Your task to perform on an android device: open a new tab in the chrome app Image 0: 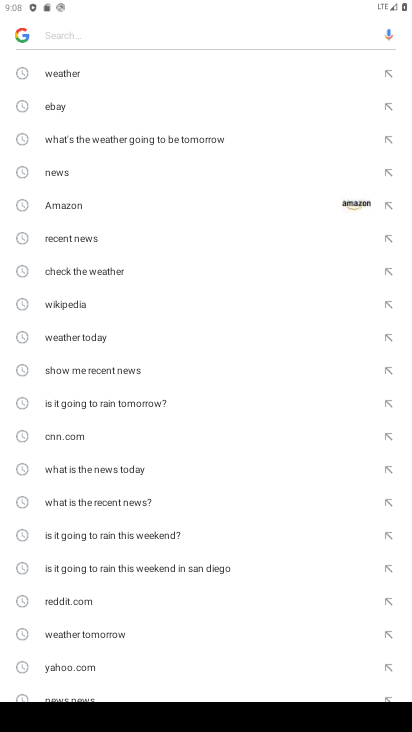
Step 0: press home button
Your task to perform on an android device: open a new tab in the chrome app Image 1: 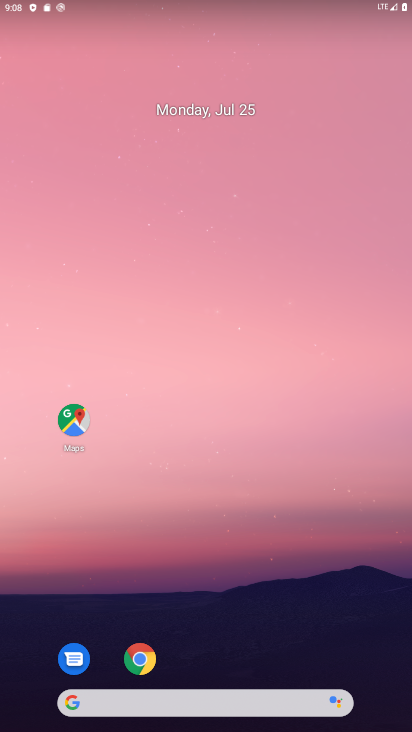
Step 1: click (146, 657)
Your task to perform on an android device: open a new tab in the chrome app Image 2: 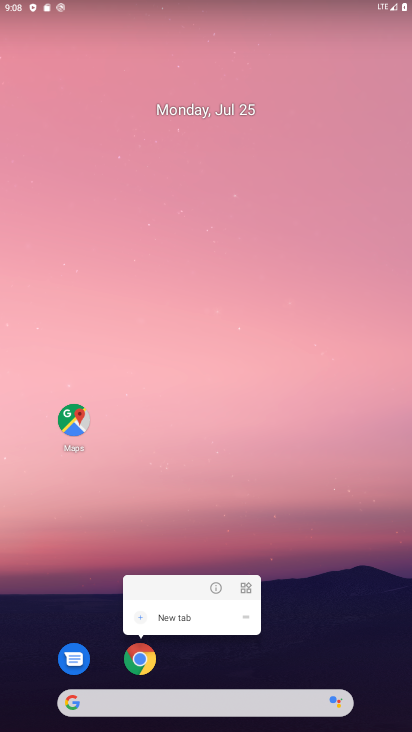
Step 2: click (141, 666)
Your task to perform on an android device: open a new tab in the chrome app Image 3: 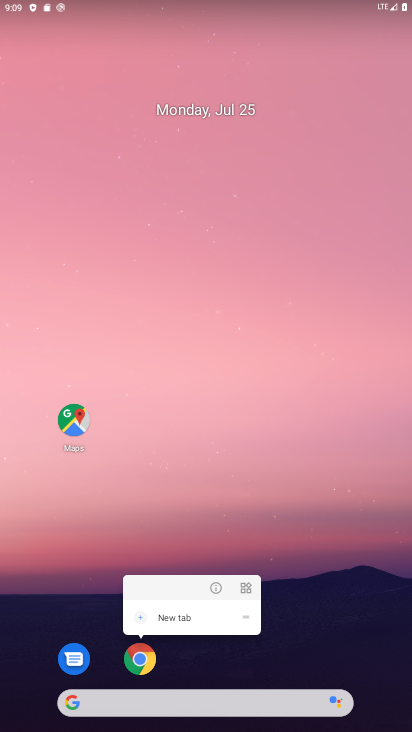
Step 3: click (145, 673)
Your task to perform on an android device: open a new tab in the chrome app Image 4: 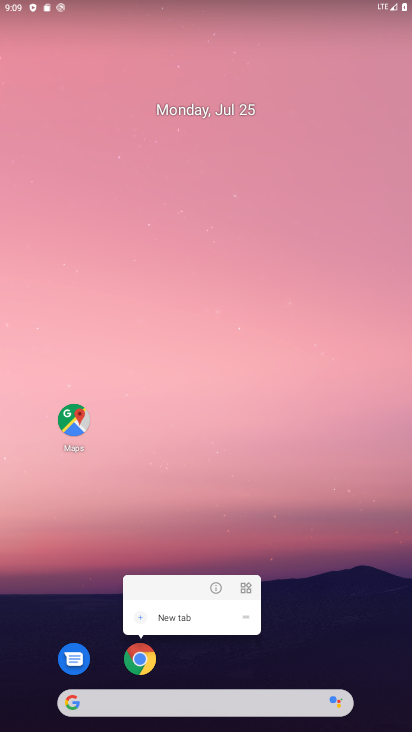
Step 4: click (141, 666)
Your task to perform on an android device: open a new tab in the chrome app Image 5: 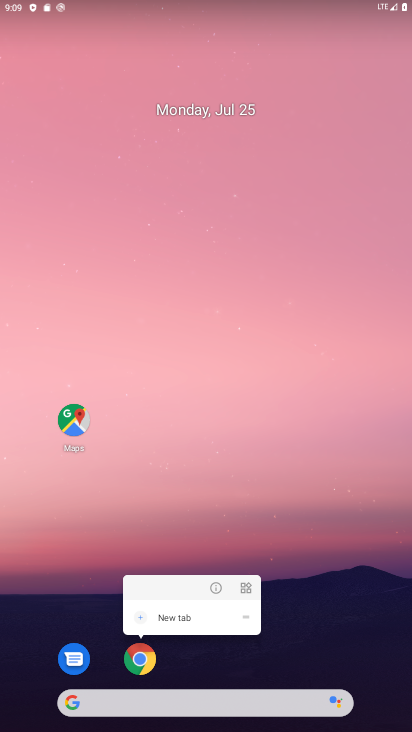
Step 5: click (141, 666)
Your task to perform on an android device: open a new tab in the chrome app Image 6: 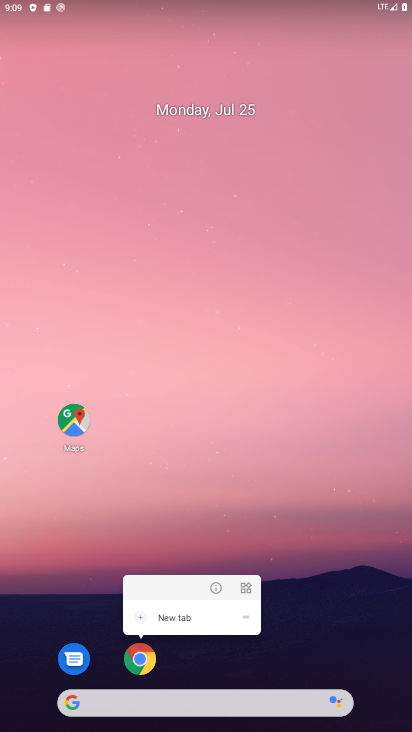
Step 6: click (148, 667)
Your task to perform on an android device: open a new tab in the chrome app Image 7: 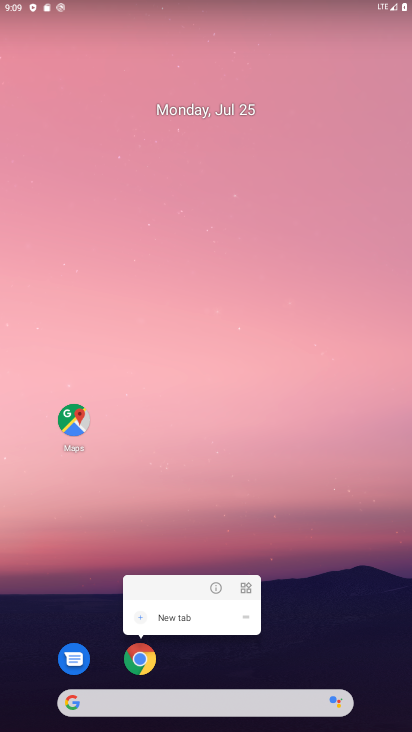
Step 7: click (143, 657)
Your task to perform on an android device: open a new tab in the chrome app Image 8: 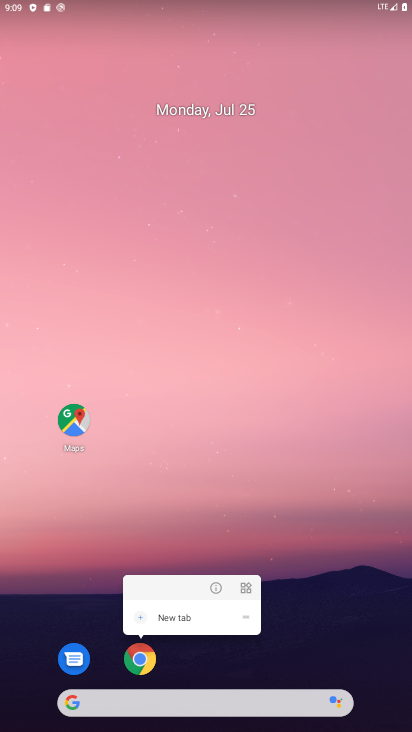
Step 8: click (143, 657)
Your task to perform on an android device: open a new tab in the chrome app Image 9: 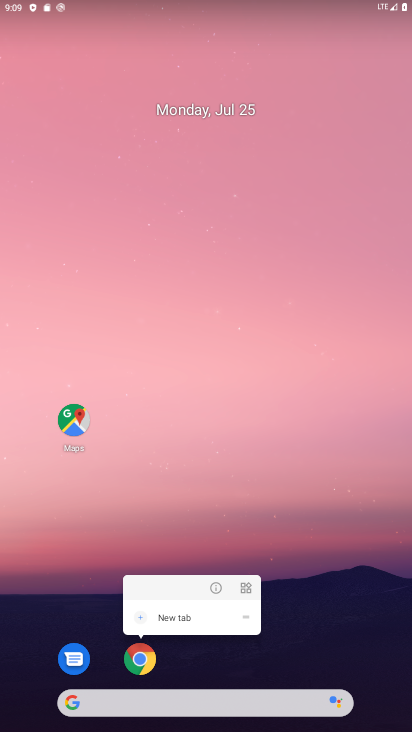
Step 9: click (144, 656)
Your task to perform on an android device: open a new tab in the chrome app Image 10: 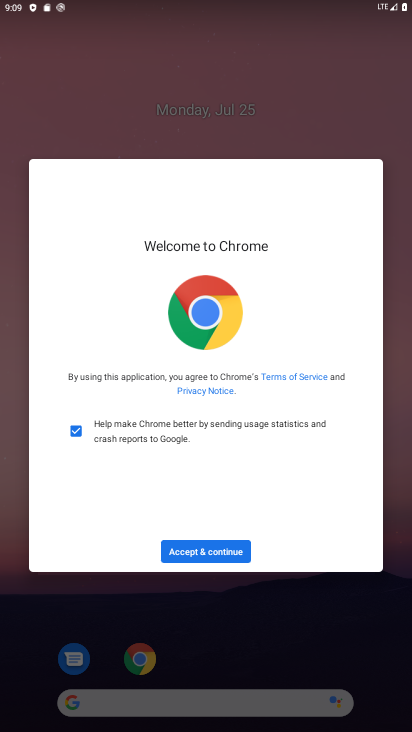
Step 10: click (207, 552)
Your task to perform on an android device: open a new tab in the chrome app Image 11: 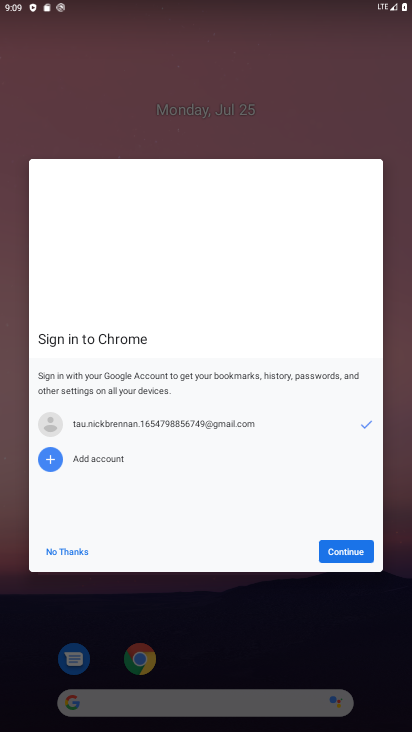
Step 11: click (340, 549)
Your task to perform on an android device: open a new tab in the chrome app Image 12: 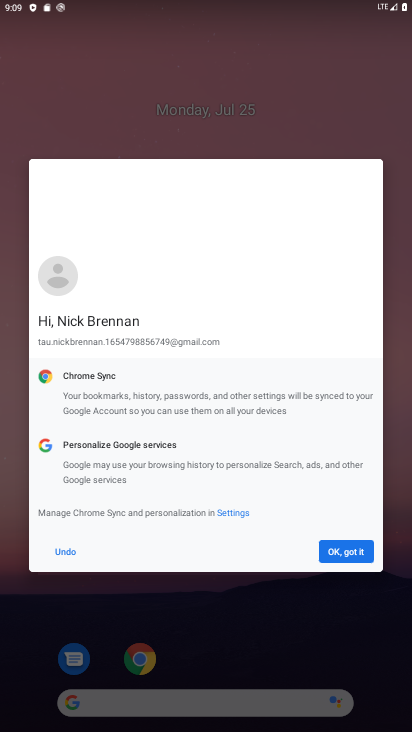
Step 12: click (341, 550)
Your task to perform on an android device: open a new tab in the chrome app Image 13: 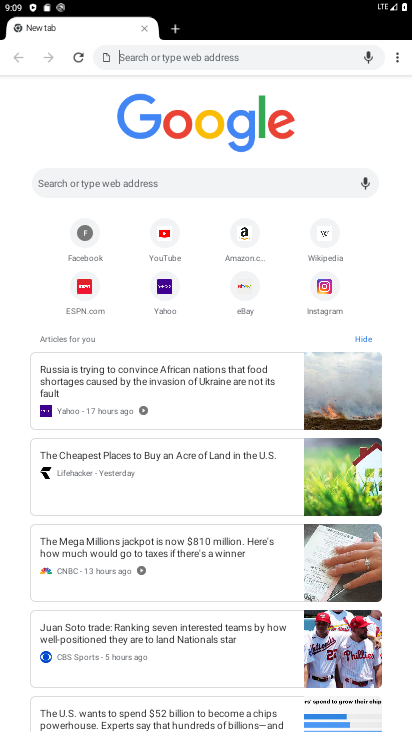
Step 13: click (177, 28)
Your task to perform on an android device: open a new tab in the chrome app Image 14: 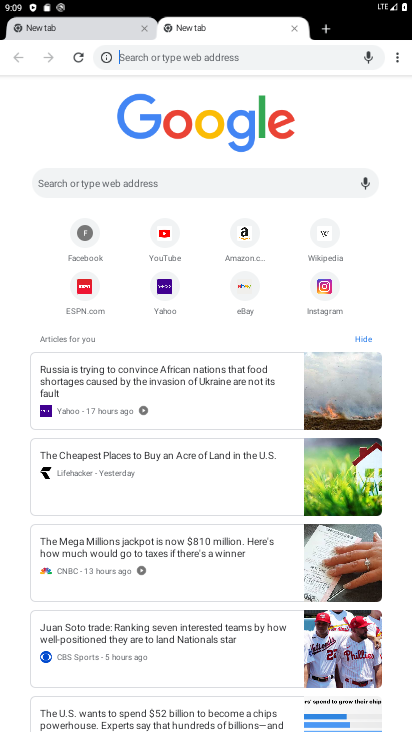
Step 14: task complete